Your task to perform on an android device: check data usage Image 0: 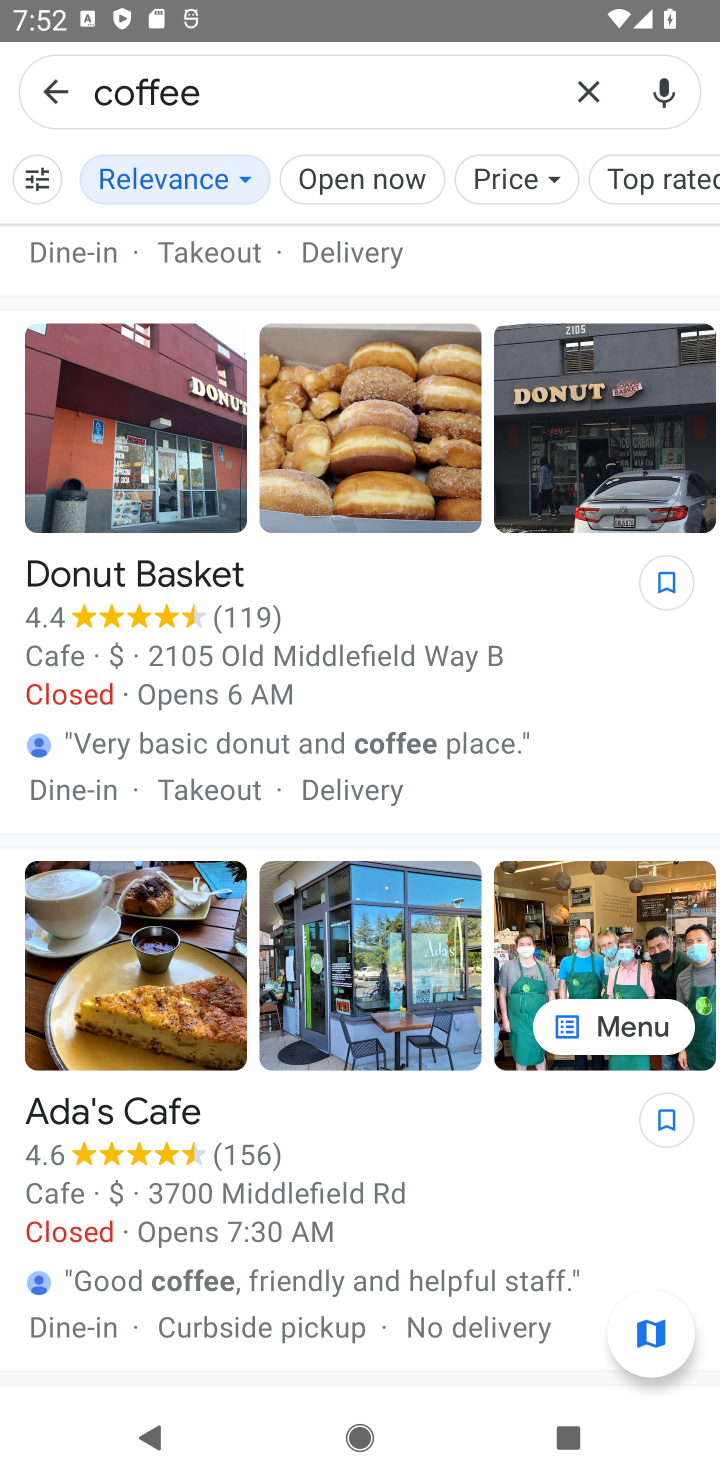
Step 0: press home button
Your task to perform on an android device: check data usage Image 1: 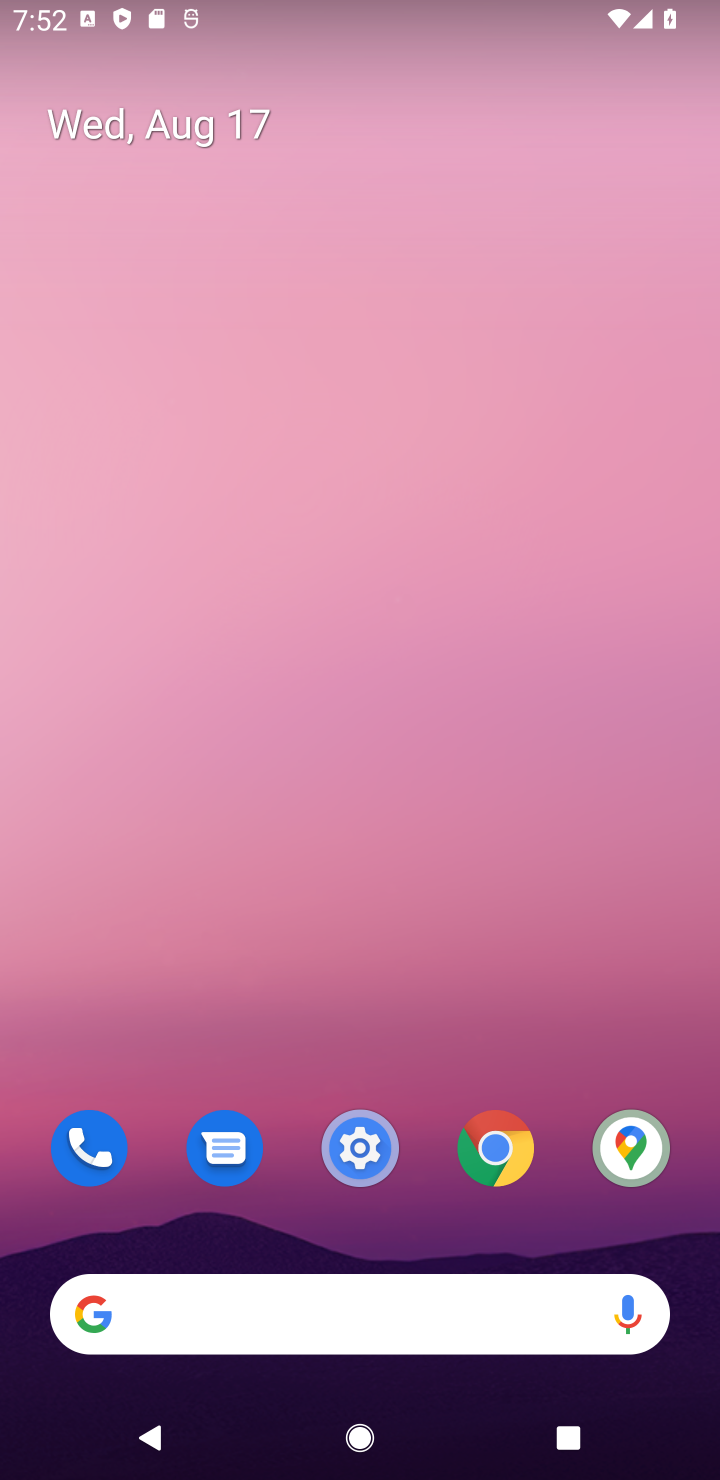
Step 1: click (364, 1145)
Your task to perform on an android device: check data usage Image 2: 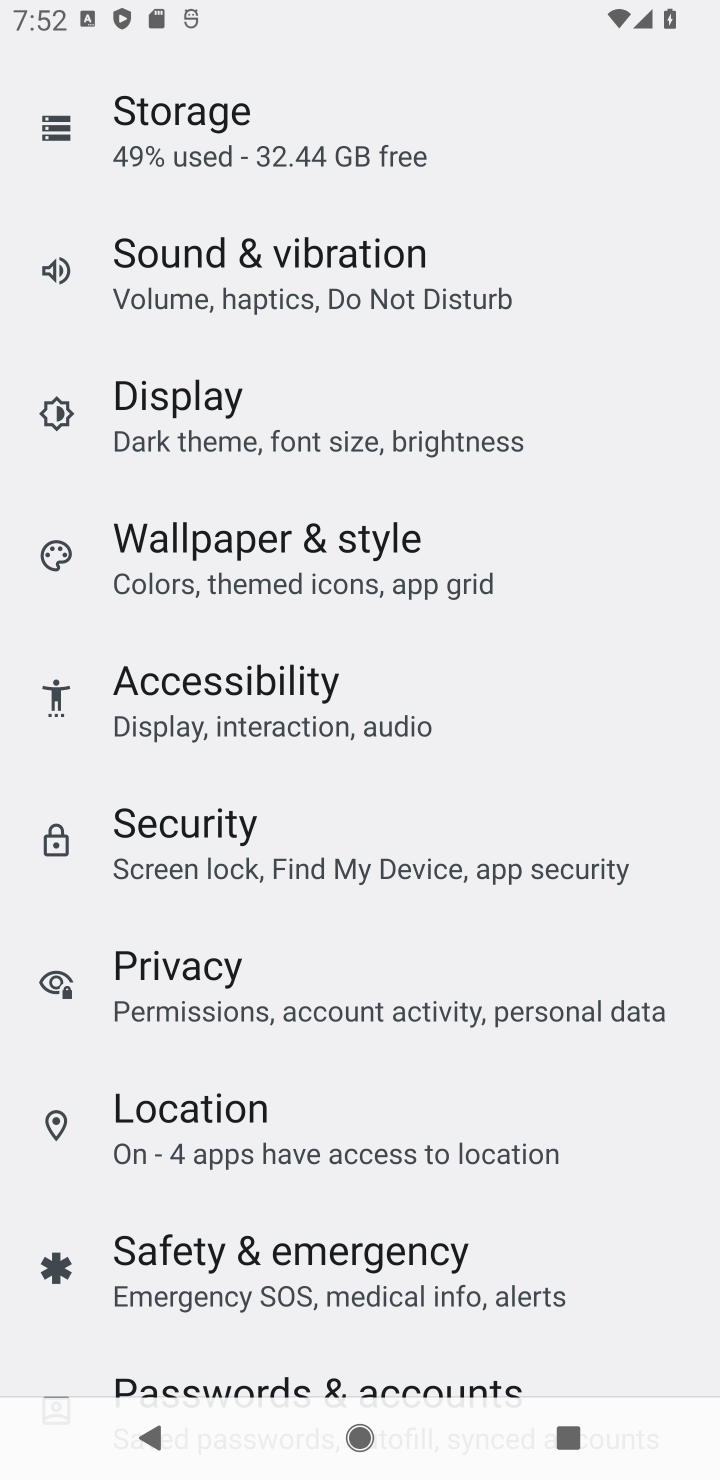
Step 2: drag from (618, 368) to (618, 809)
Your task to perform on an android device: check data usage Image 3: 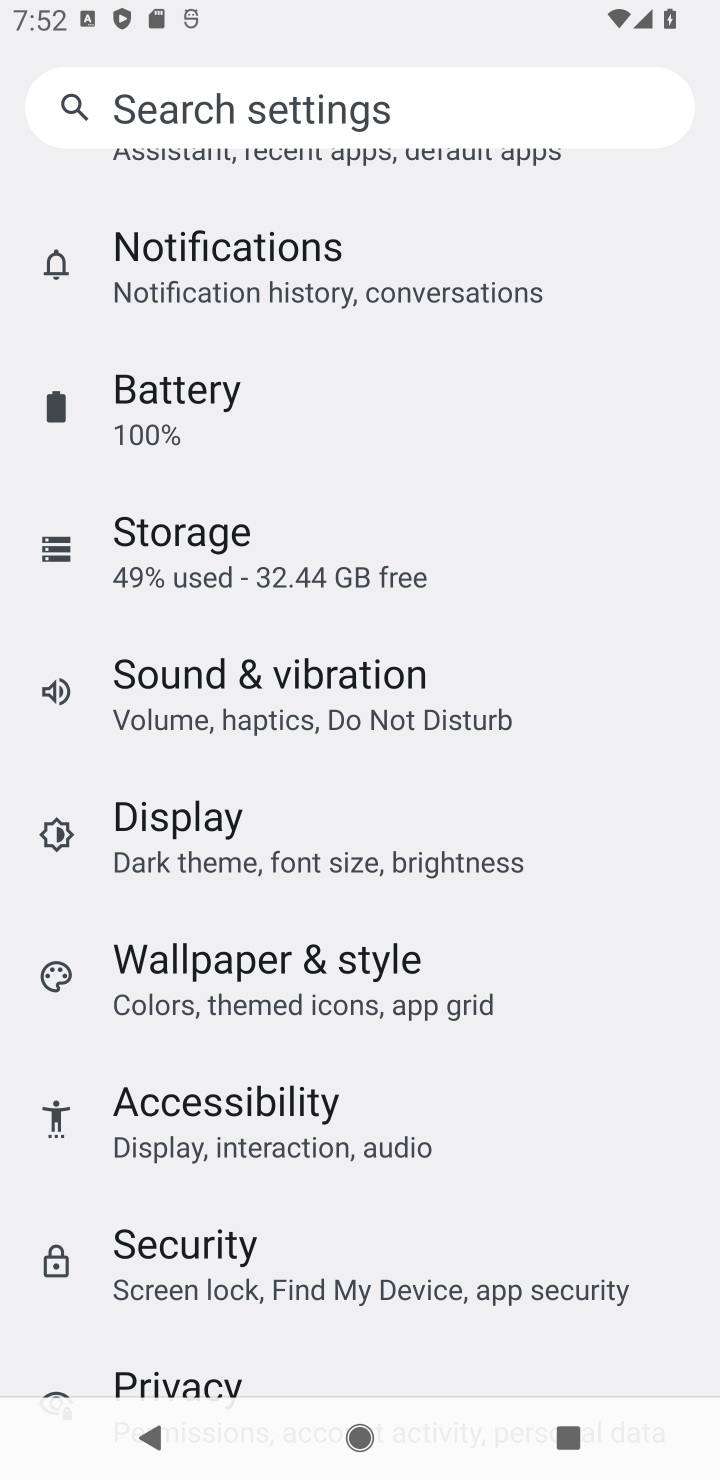
Step 3: drag from (633, 357) to (592, 955)
Your task to perform on an android device: check data usage Image 4: 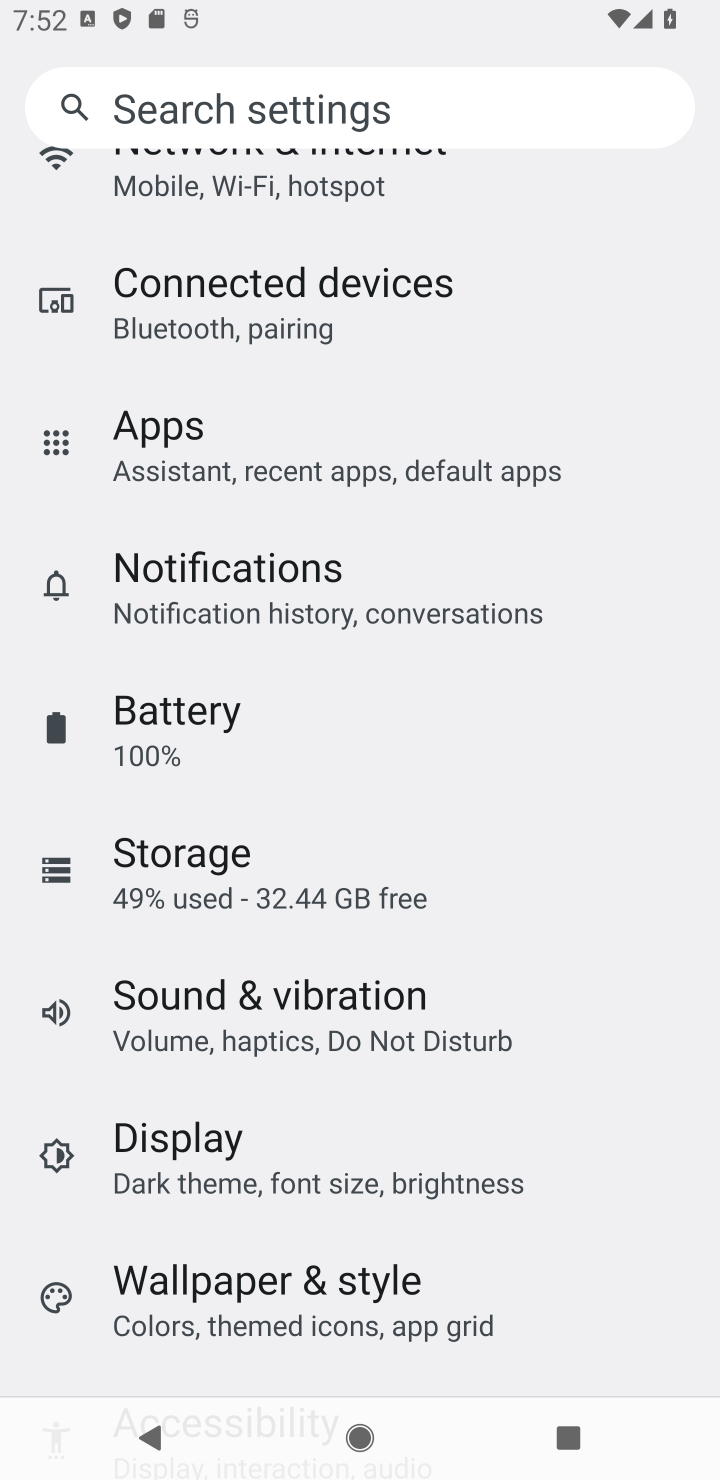
Step 4: drag from (606, 546) to (609, 1075)
Your task to perform on an android device: check data usage Image 5: 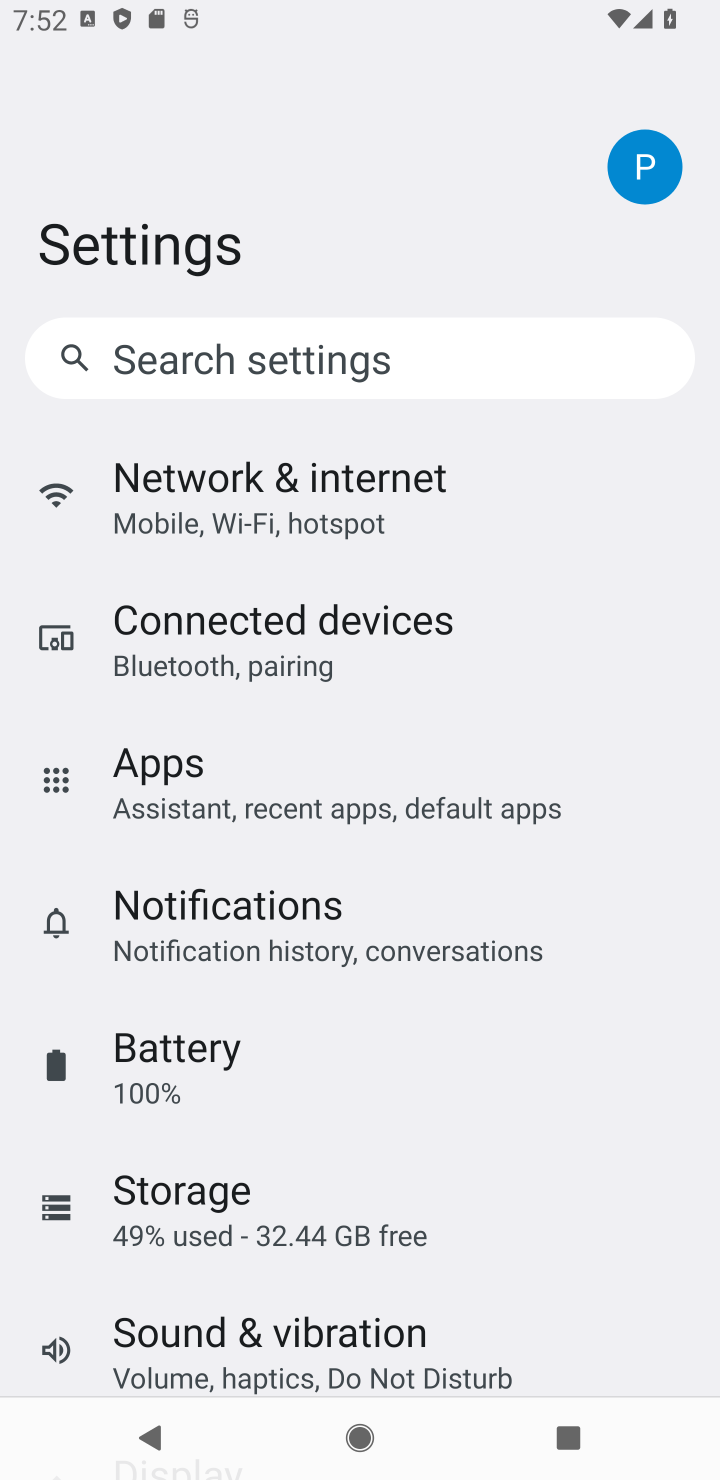
Step 5: click (257, 486)
Your task to perform on an android device: check data usage Image 6: 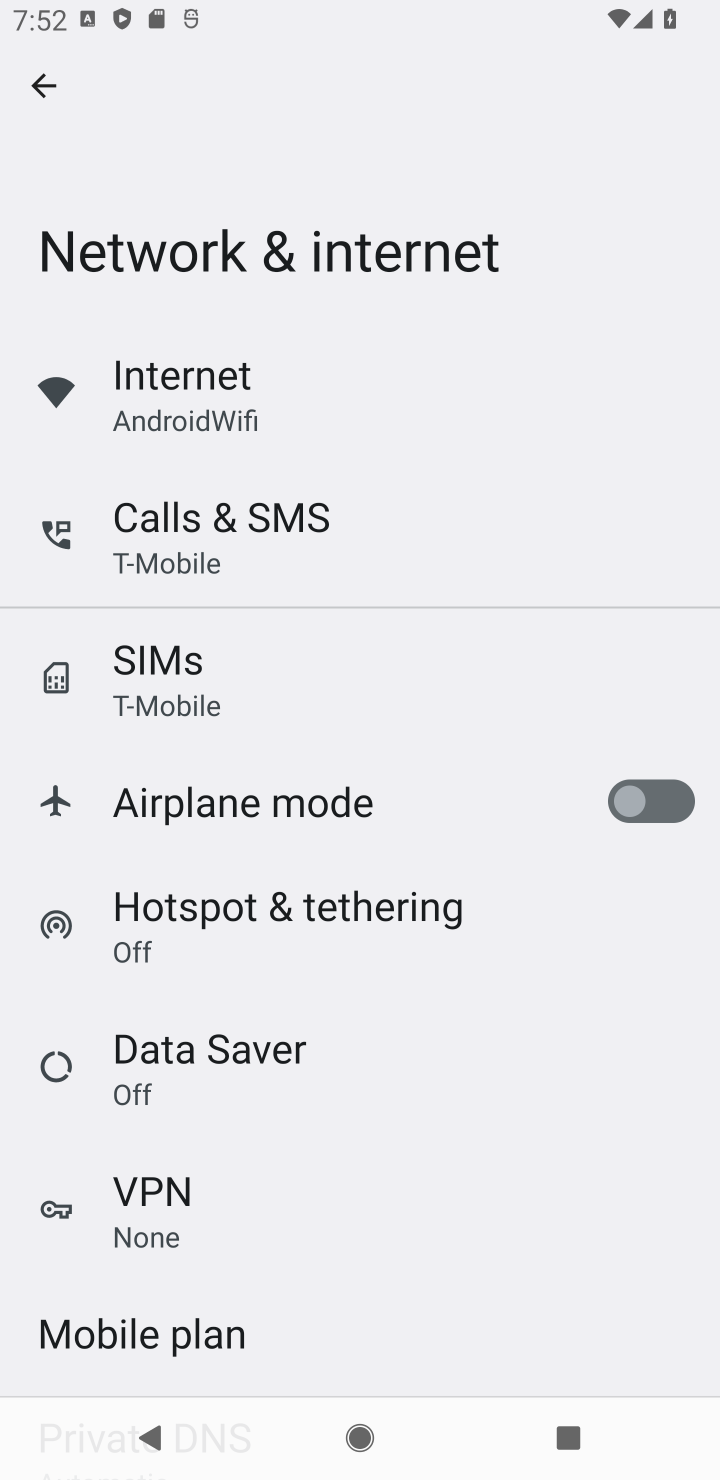
Step 6: click (191, 375)
Your task to perform on an android device: check data usage Image 7: 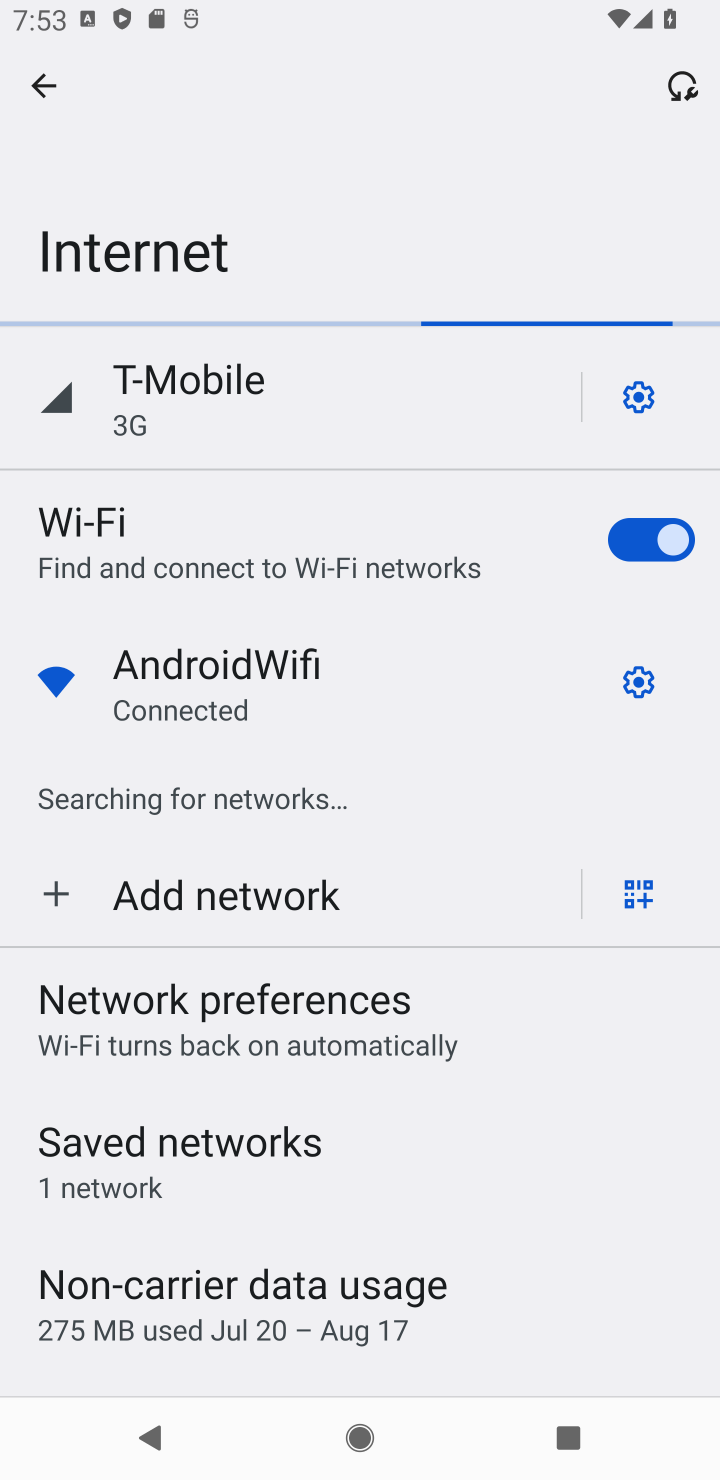
Step 7: click (638, 388)
Your task to perform on an android device: check data usage Image 8: 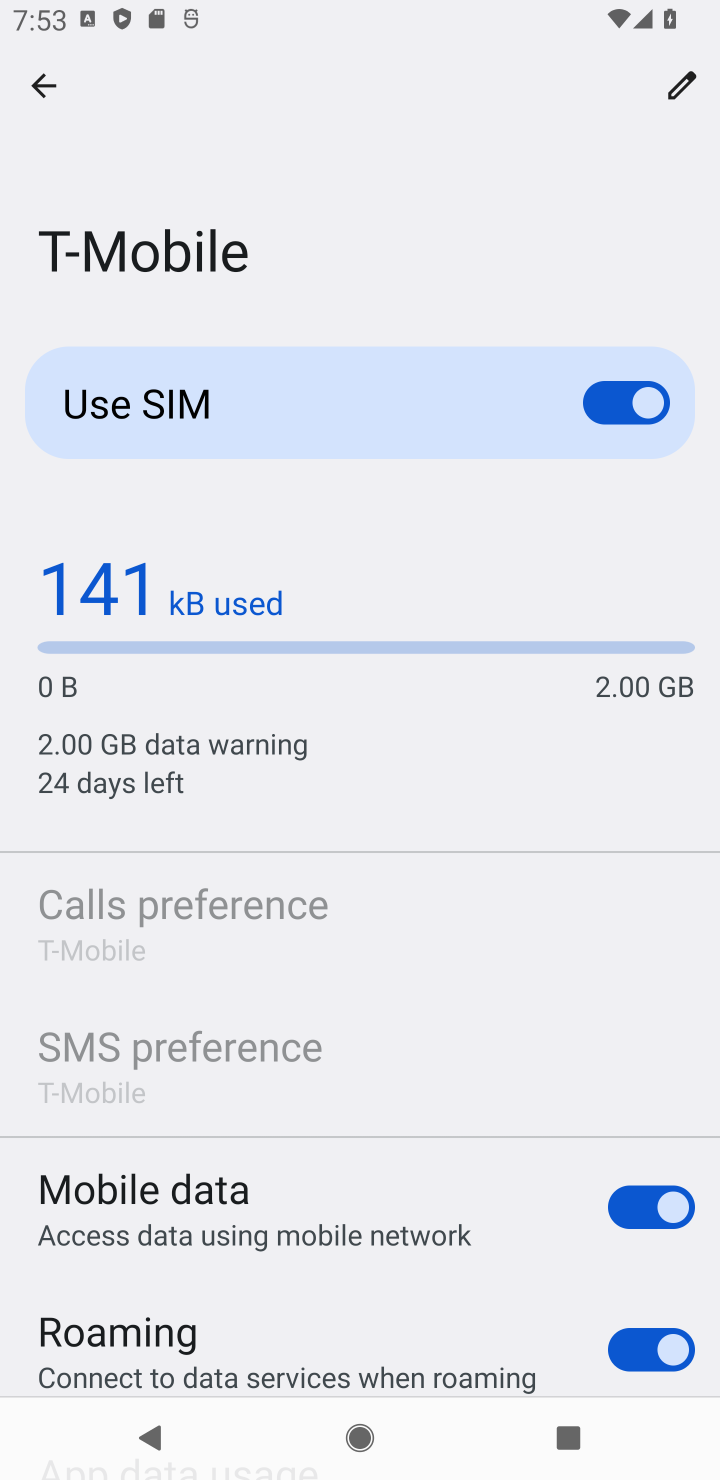
Step 8: task complete